Your task to perform on an android device: Open my contact list Image 0: 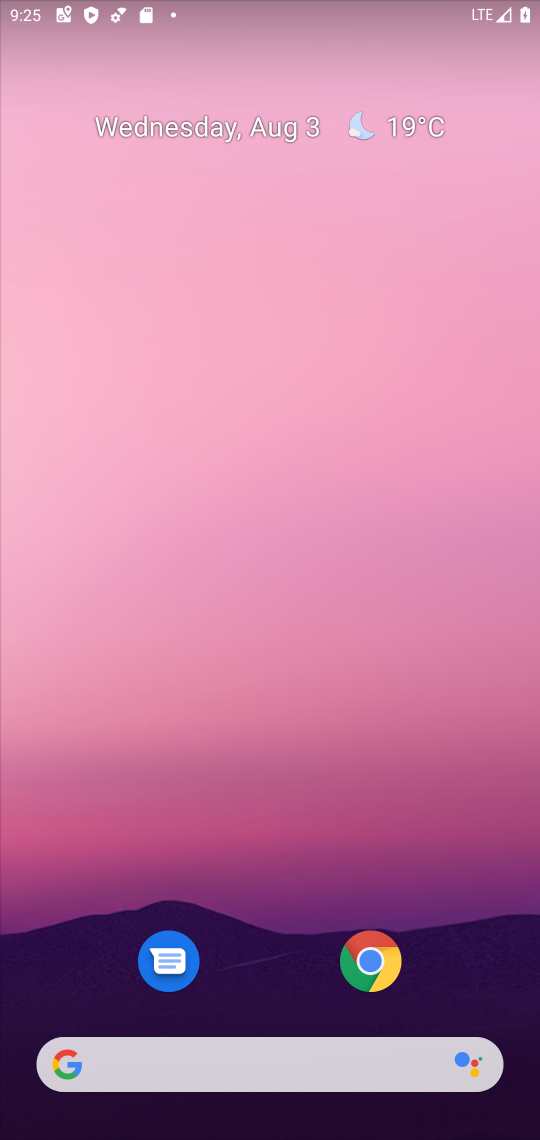
Step 0: drag from (208, 1009) to (237, 22)
Your task to perform on an android device: Open my contact list Image 1: 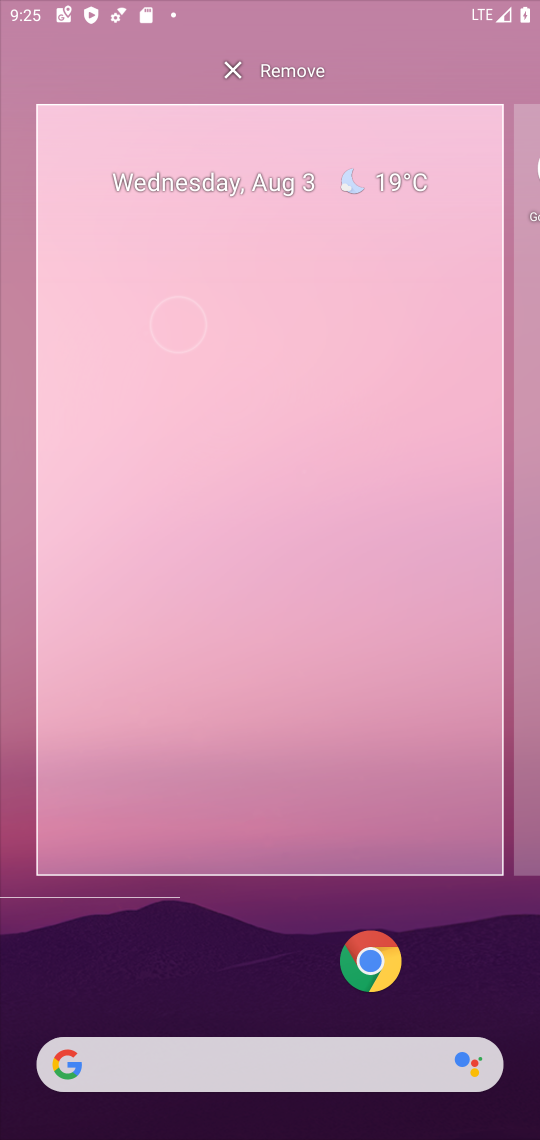
Step 1: click (290, 771)
Your task to perform on an android device: Open my contact list Image 2: 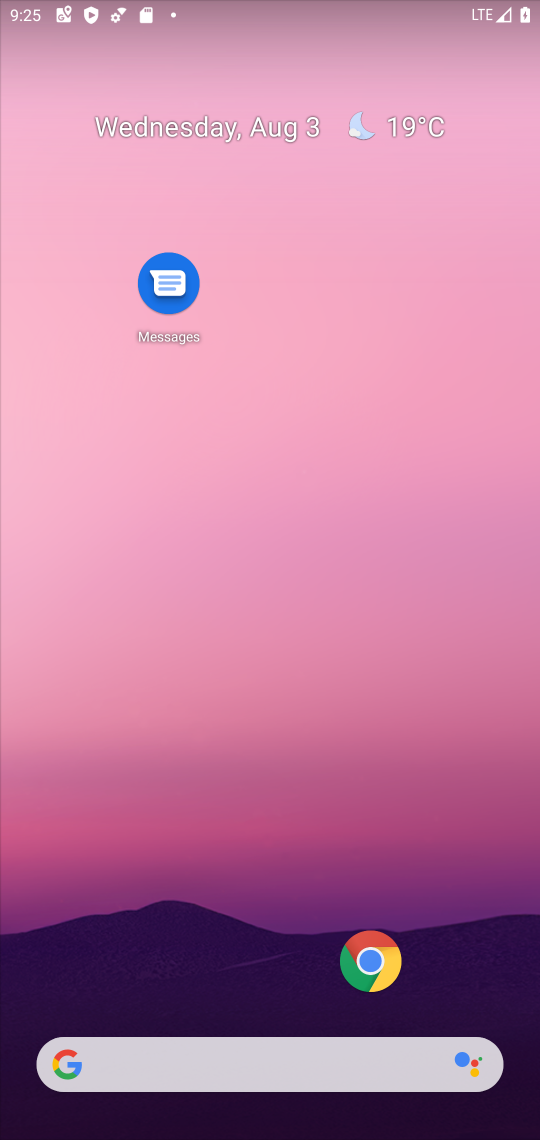
Step 2: drag from (270, 973) to (286, 0)
Your task to perform on an android device: Open my contact list Image 3: 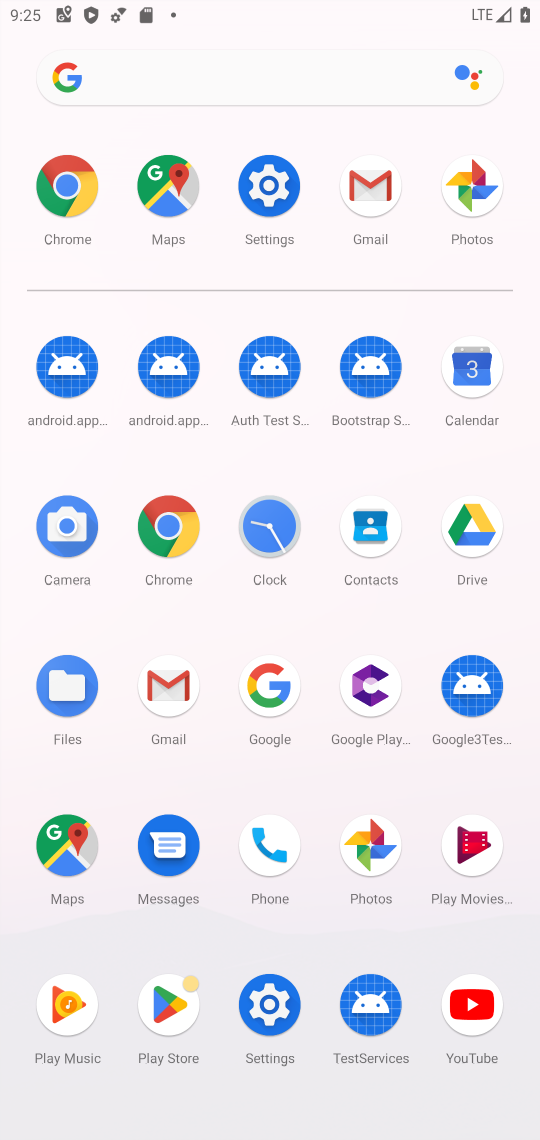
Step 3: click (359, 553)
Your task to perform on an android device: Open my contact list Image 4: 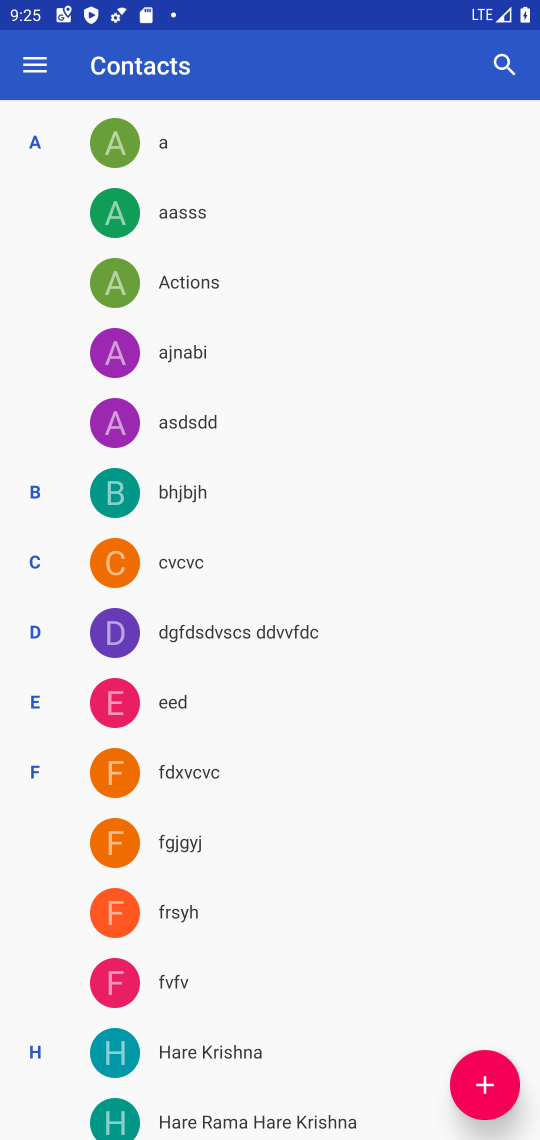
Step 4: task complete